Your task to perform on an android device: search for starred emails in the gmail app Image 0: 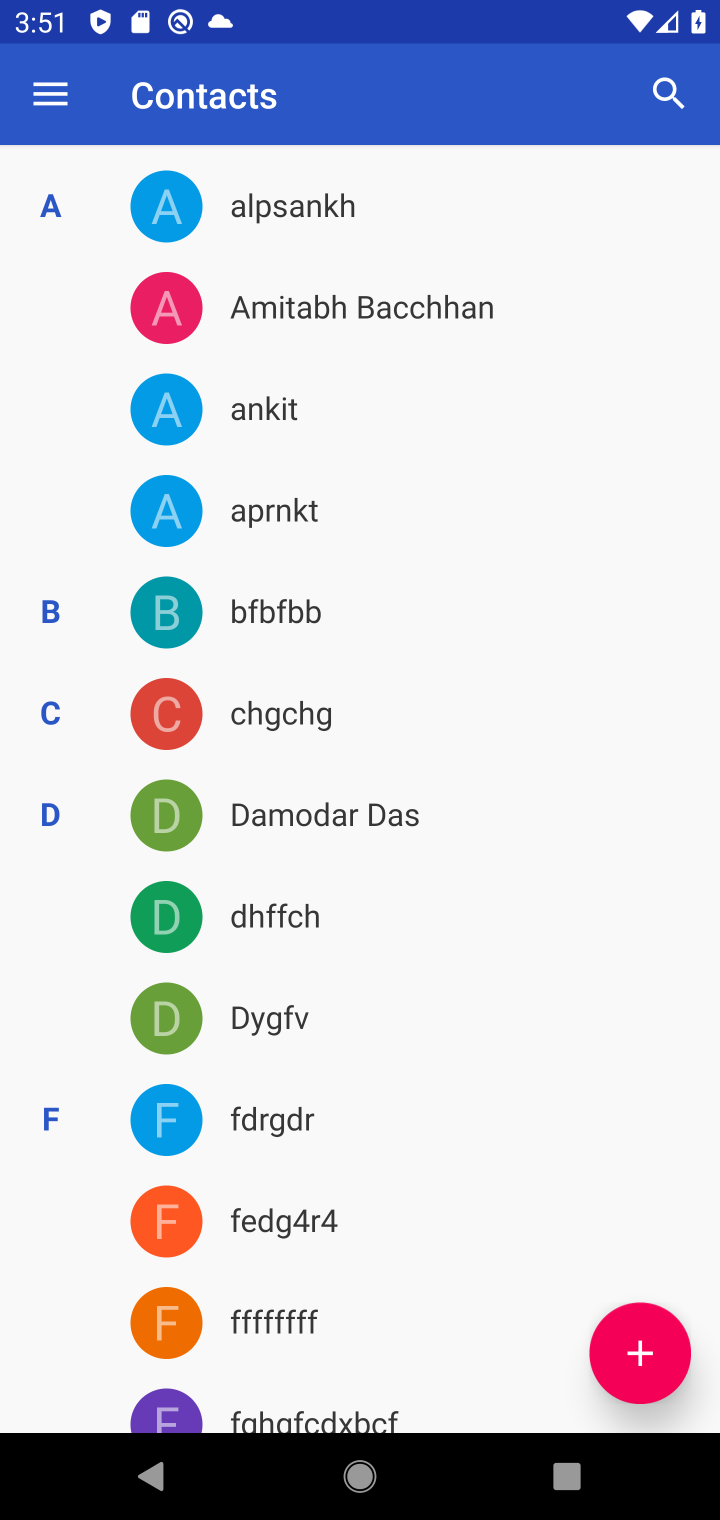
Step 0: press home button
Your task to perform on an android device: search for starred emails in the gmail app Image 1: 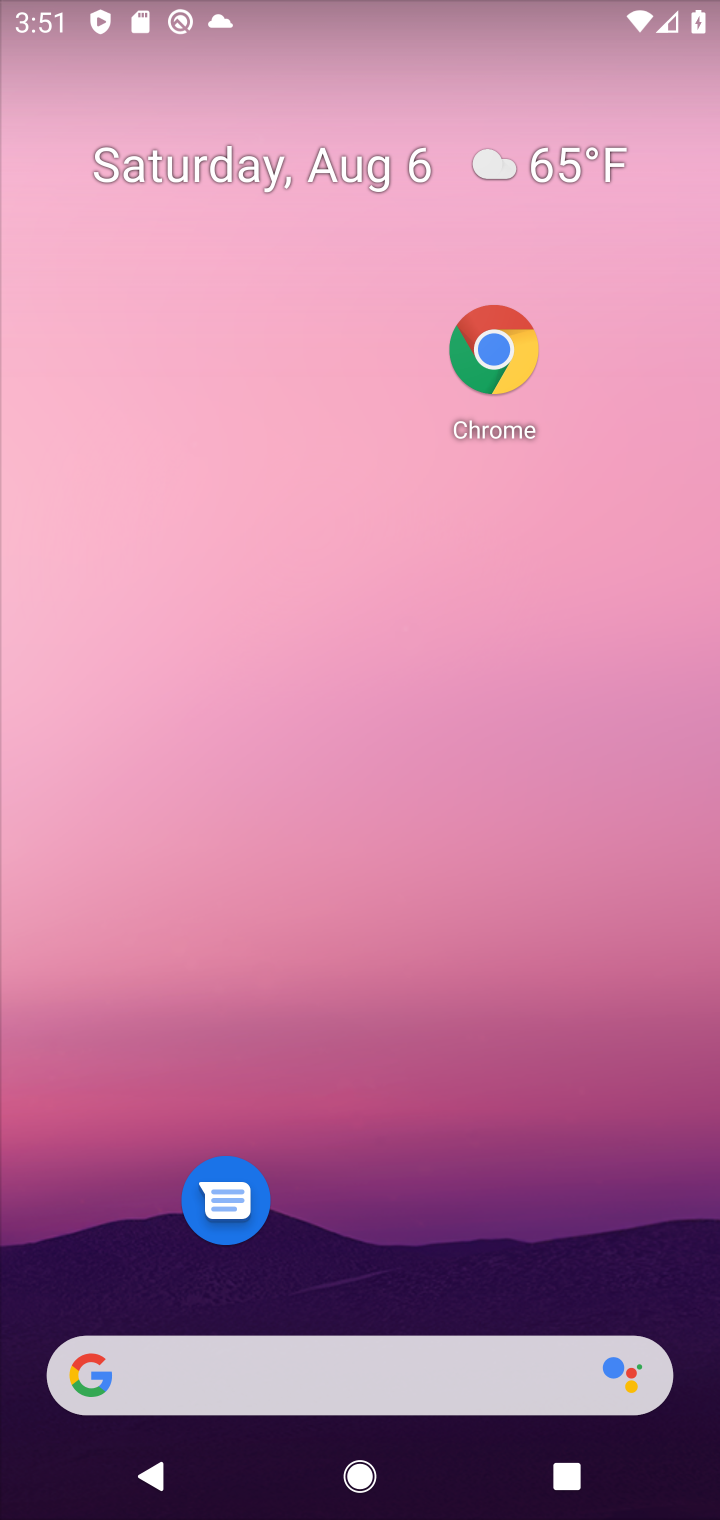
Step 1: drag from (364, 1341) to (348, 262)
Your task to perform on an android device: search for starred emails in the gmail app Image 2: 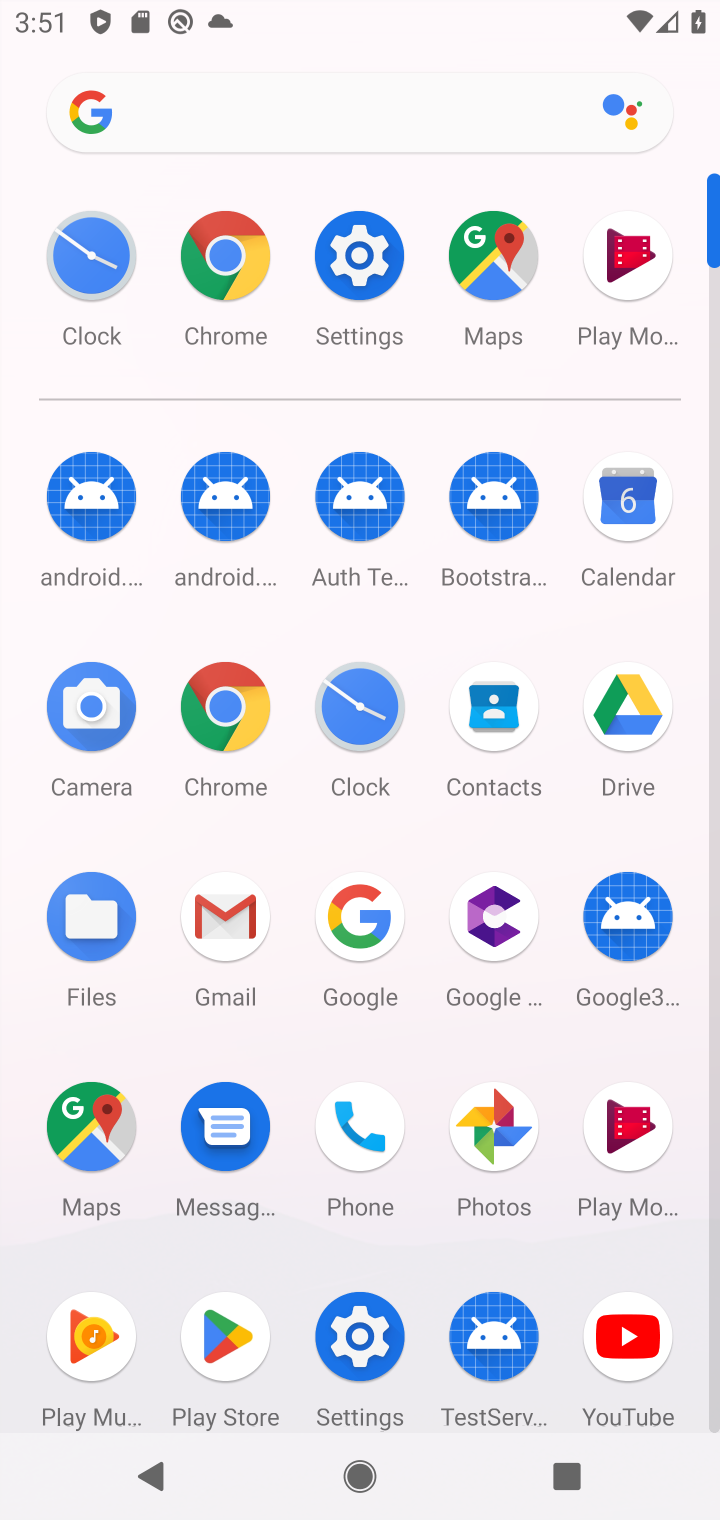
Step 2: click (234, 921)
Your task to perform on an android device: search for starred emails in the gmail app Image 3: 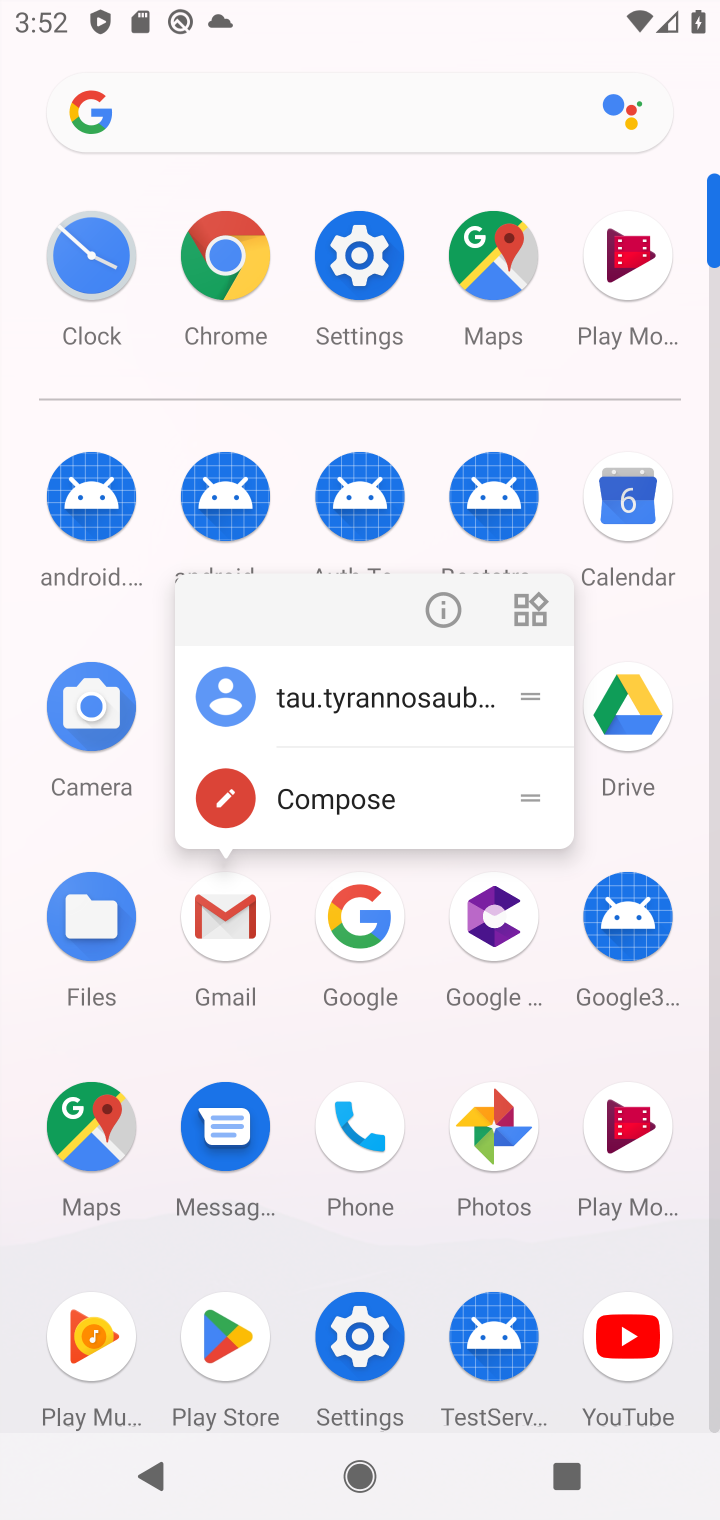
Step 3: click (234, 933)
Your task to perform on an android device: search for starred emails in the gmail app Image 4: 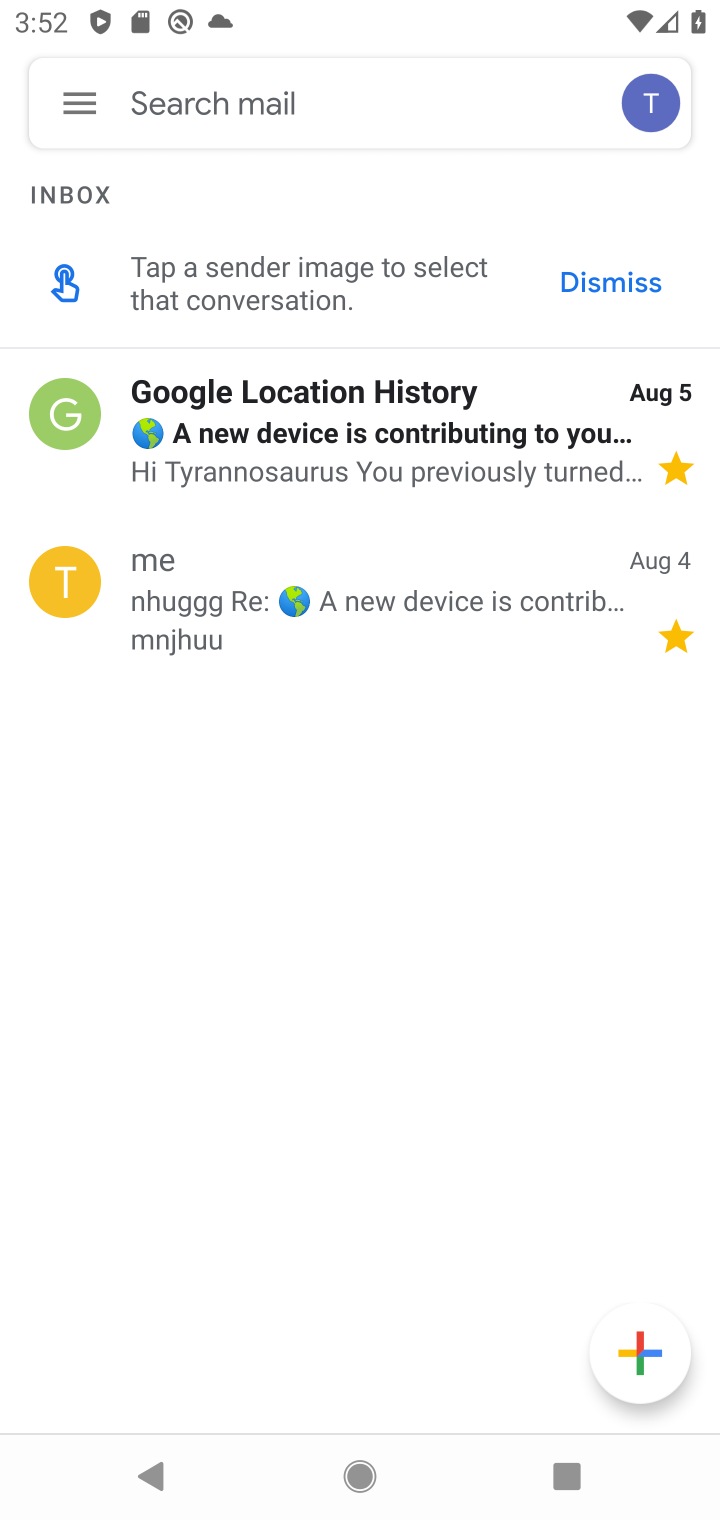
Step 4: click (73, 106)
Your task to perform on an android device: search for starred emails in the gmail app Image 5: 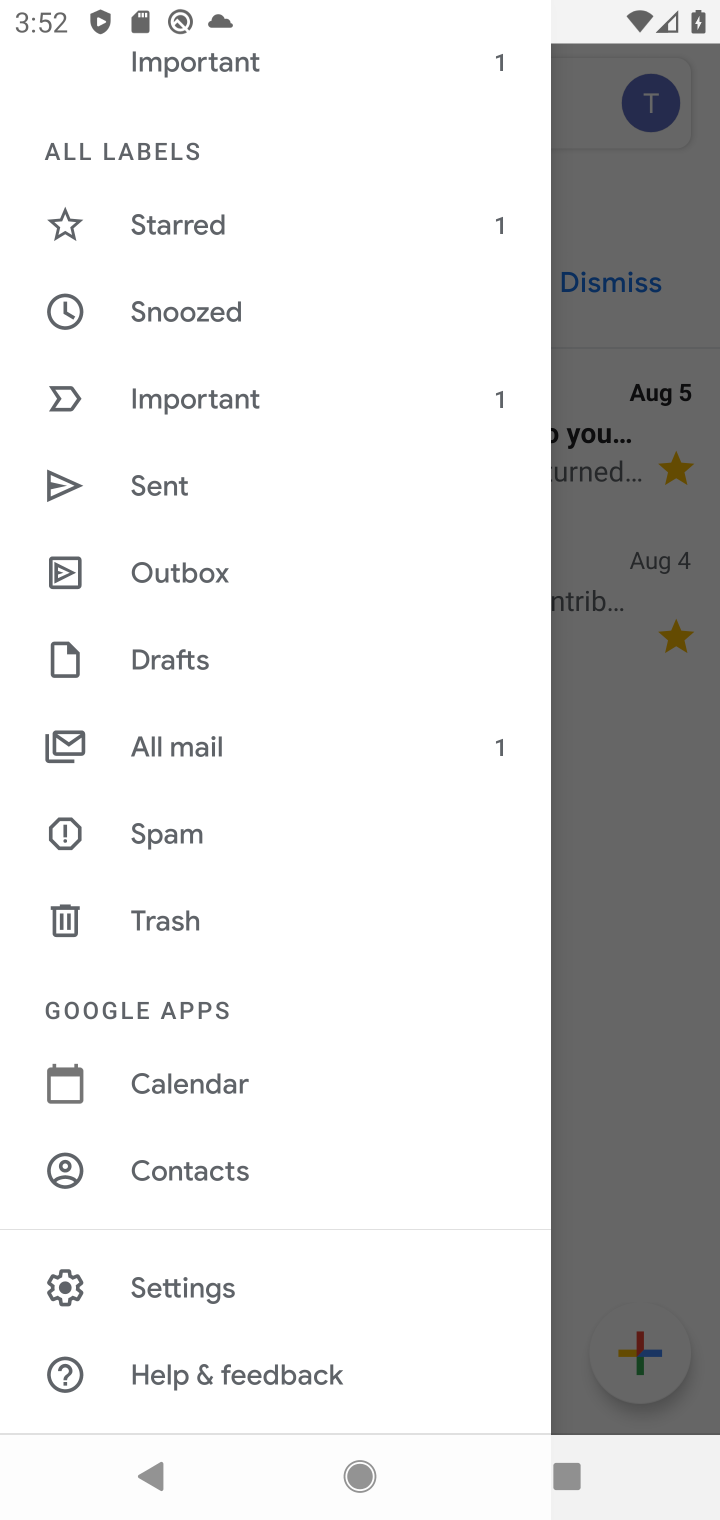
Step 5: click (173, 228)
Your task to perform on an android device: search for starred emails in the gmail app Image 6: 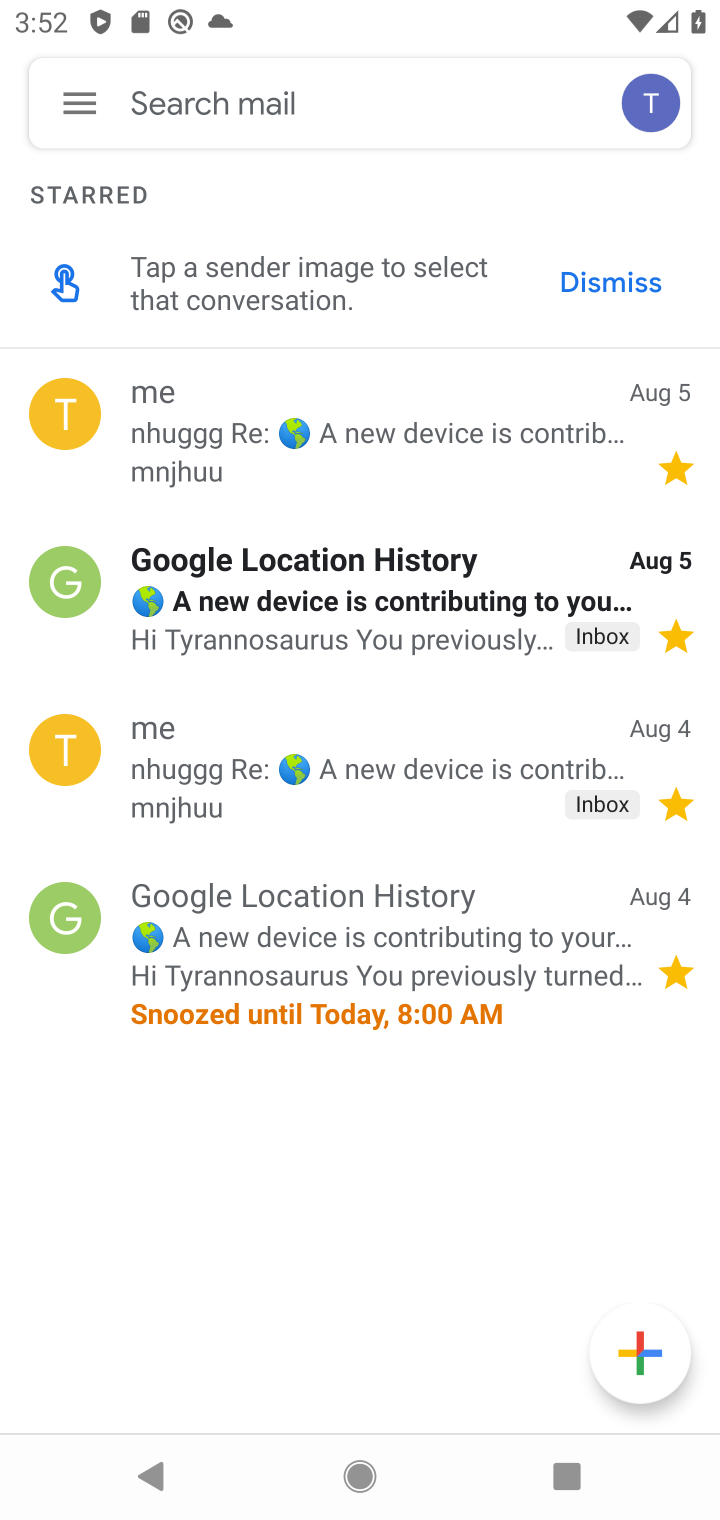
Step 6: task complete